Your task to perform on an android device: turn on javascript in the chrome app Image 0: 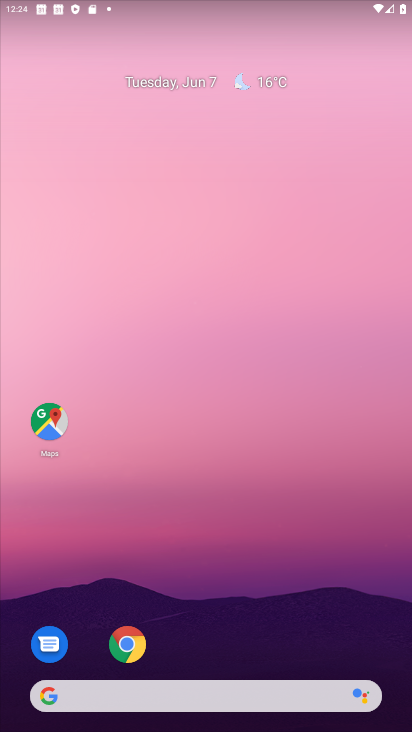
Step 0: drag from (147, 664) to (183, 386)
Your task to perform on an android device: turn on javascript in the chrome app Image 1: 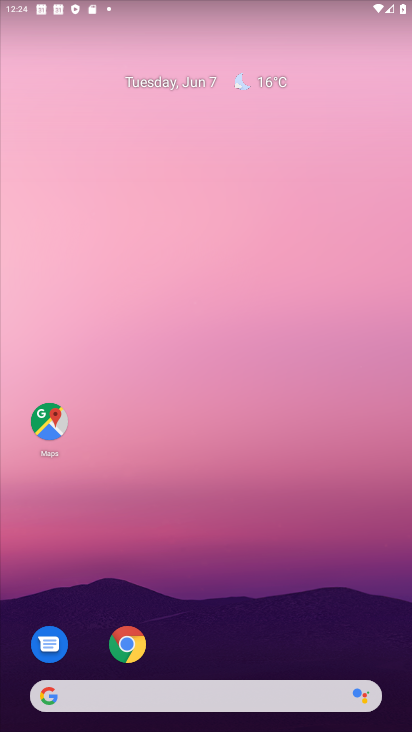
Step 1: drag from (232, 554) to (304, 124)
Your task to perform on an android device: turn on javascript in the chrome app Image 2: 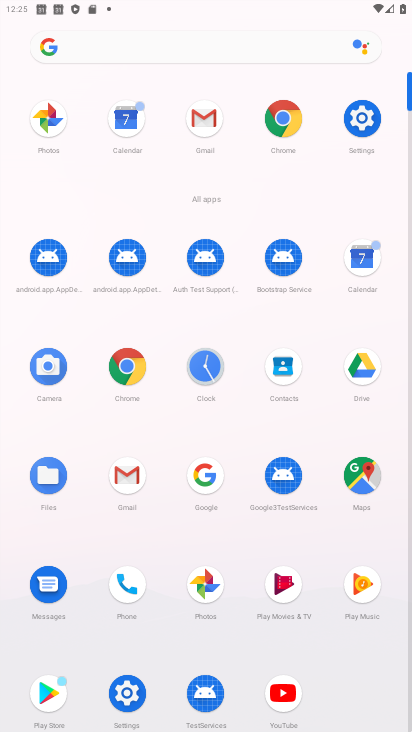
Step 2: click (281, 112)
Your task to perform on an android device: turn on javascript in the chrome app Image 3: 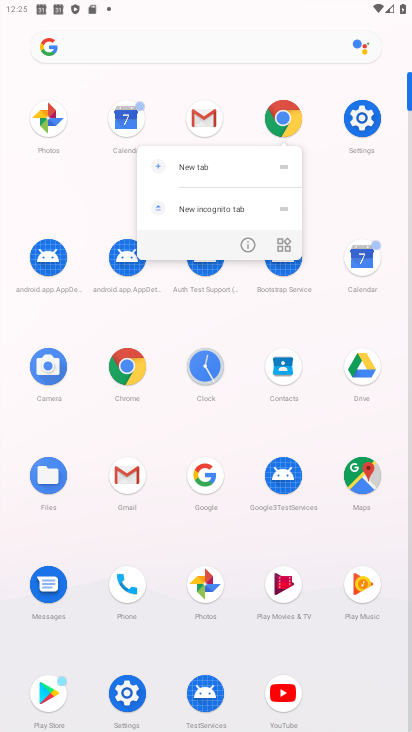
Step 3: click (282, 119)
Your task to perform on an android device: turn on javascript in the chrome app Image 4: 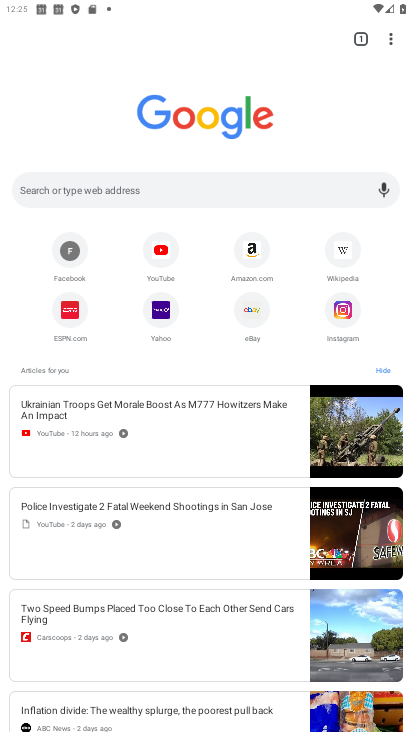
Step 4: click (400, 41)
Your task to perform on an android device: turn on javascript in the chrome app Image 5: 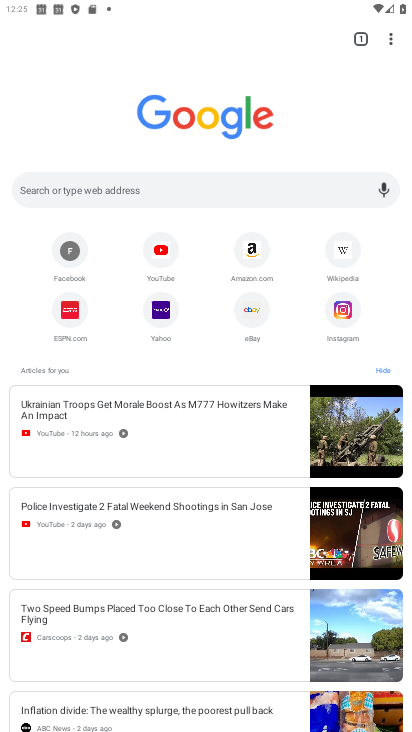
Step 5: click (390, 40)
Your task to perform on an android device: turn on javascript in the chrome app Image 6: 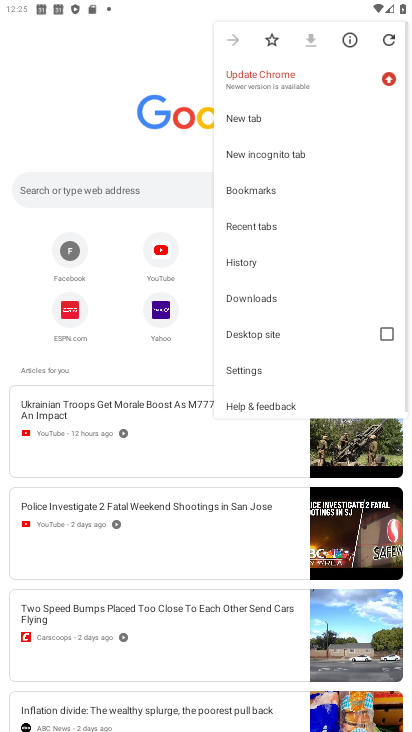
Step 6: drag from (262, 272) to (285, 81)
Your task to perform on an android device: turn on javascript in the chrome app Image 7: 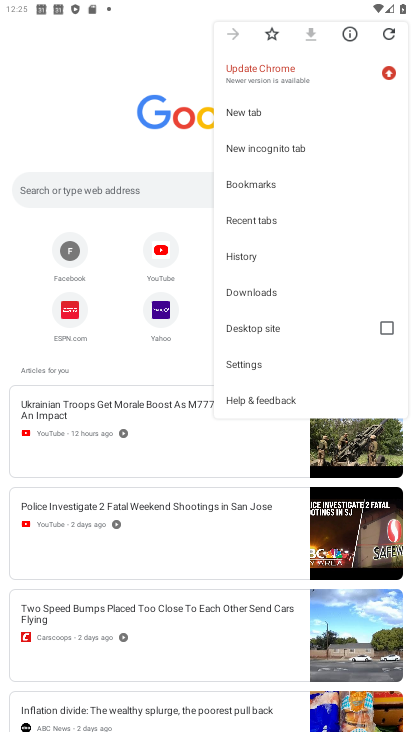
Step 7: click (269, 359)
Your task to perform on an android device: turn on javascript in the chrome app Image 8: 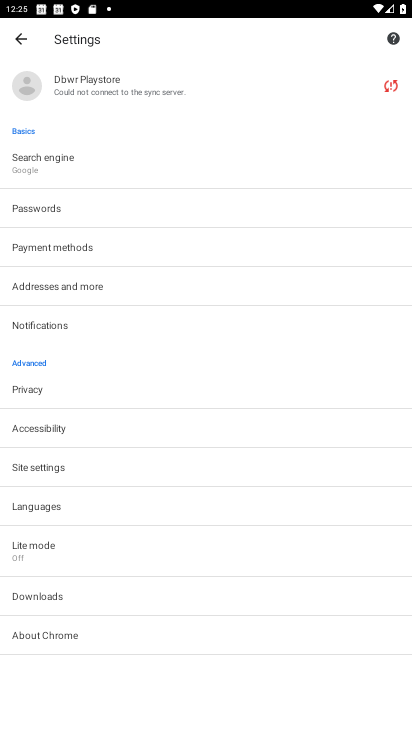
Step 8: click (62, 465)
Your task to perform on an android device: turn on javascript in the chrome app Image 9: 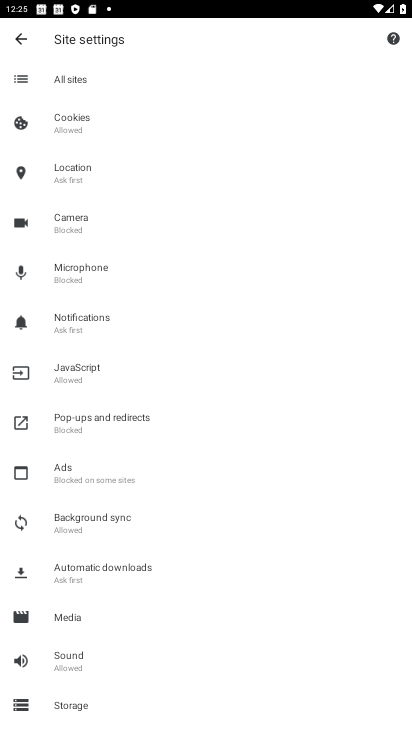
Step 9: click (45, 379)
Your task to perform on an android device: turn on javascript in the chrome app Image 10: 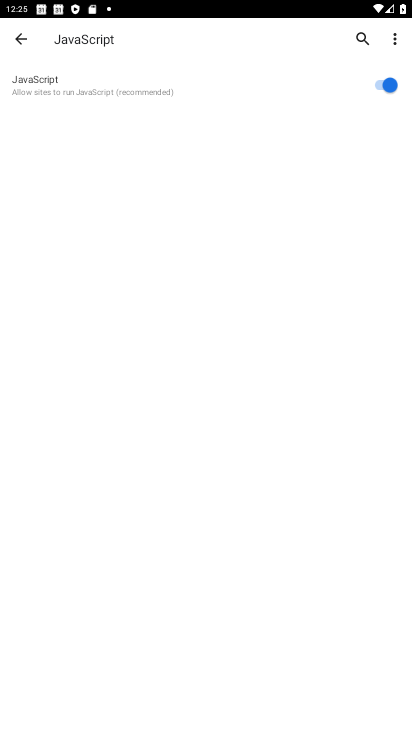
Step 10: task complete